Your task to perform on an android device: choose inbox layout in the gmail app Image 0: 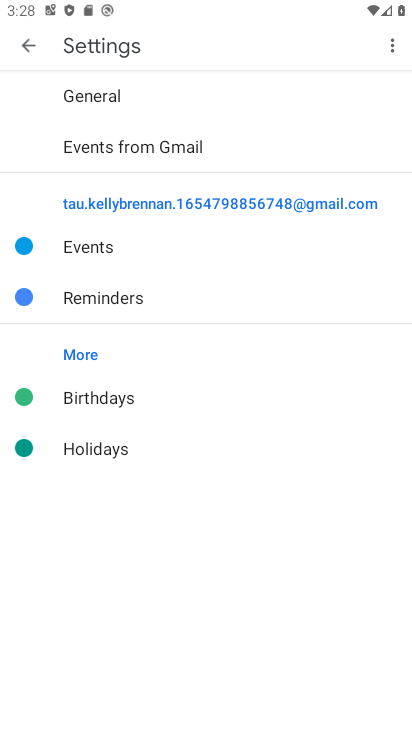
Step 0: press home button
Your task to perform on an android device: choose inbox layout in the gmail app Image 1: 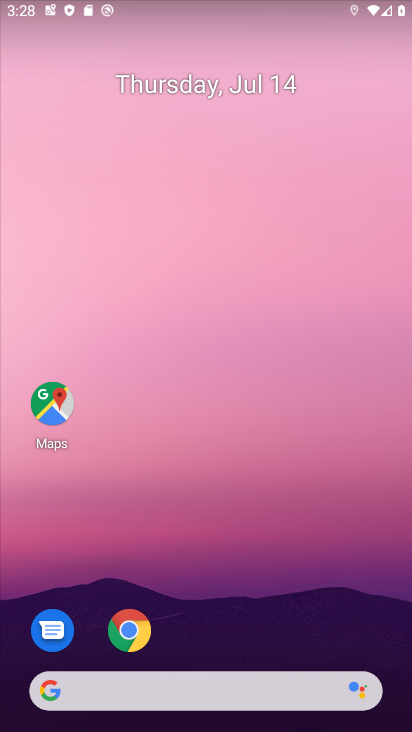
Step 1: drag from (267, 601) to (237, 274)
Your task to perform on an android device: choose inbox layout in the gmail app Image 2: 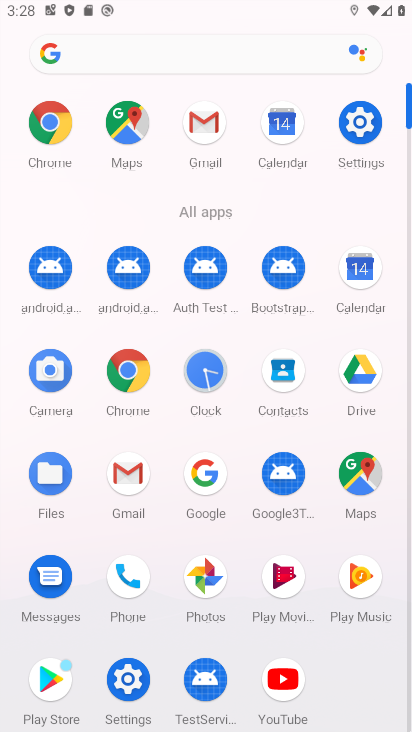
Step 2: click (134, 472)
Your task to perform on an android device: choose inbox layout in the gmail app Image 3: 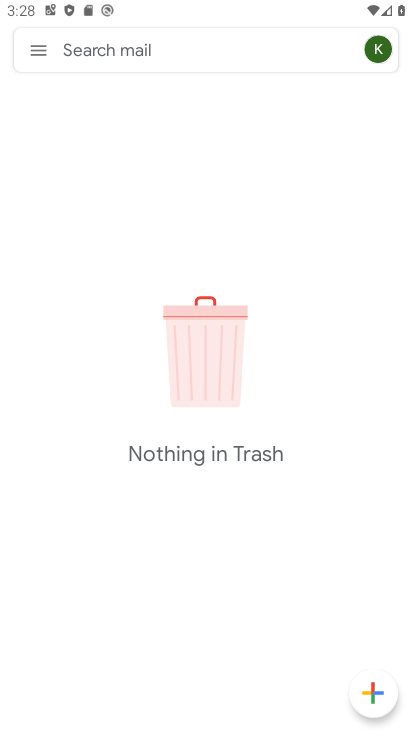
Step 3: click (33, 50)
Your task to perform on an android device: choose inbox layout in the gmail app Image 4: 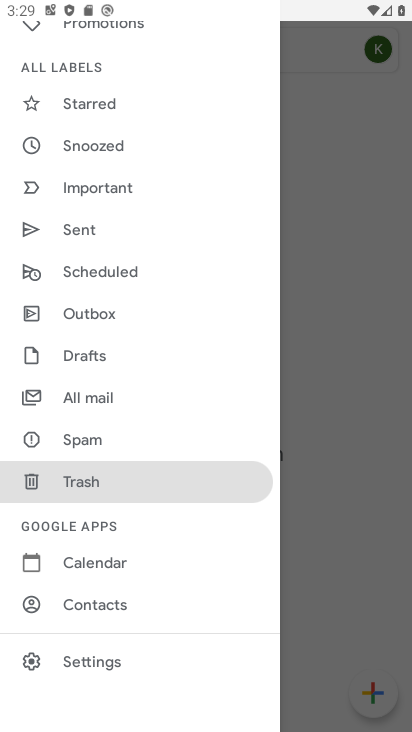
Step 4: click (154, 655)
Your task to perform on an android device: choose inbox layout in the gmail app Image 5: 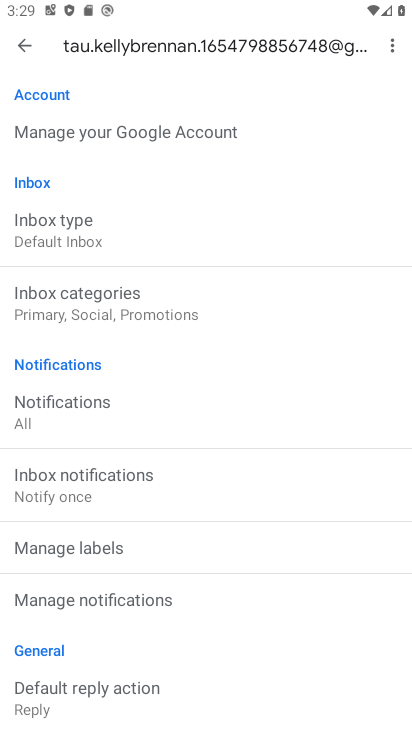
Step 5: click (86, 225)
Your task to perform on an android device: choose inbox layout in the gmail app Image 6: 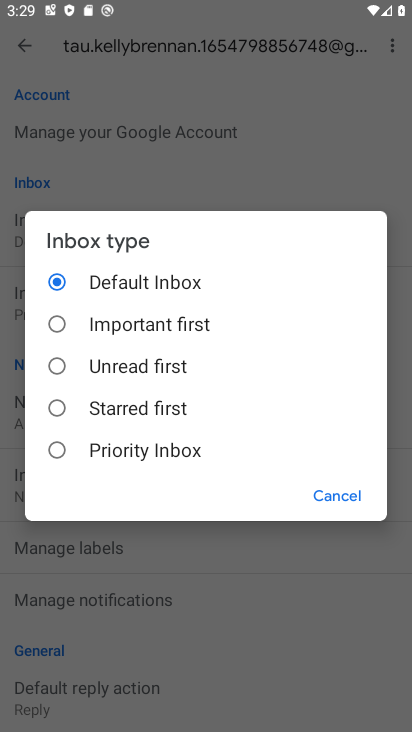
Step 6: click (118, 324)
Your task to perform on an android device: choose inbox layout in the gmail app Image 7: 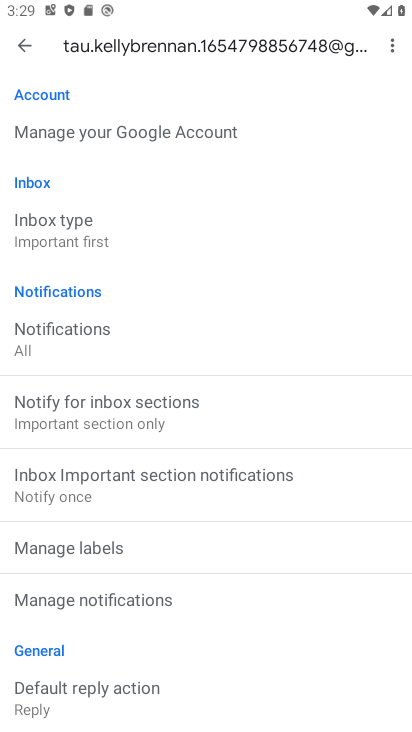
Step 7: task complete